Your task to perform on an android device: Show me popular videos on Youtube Image 0: 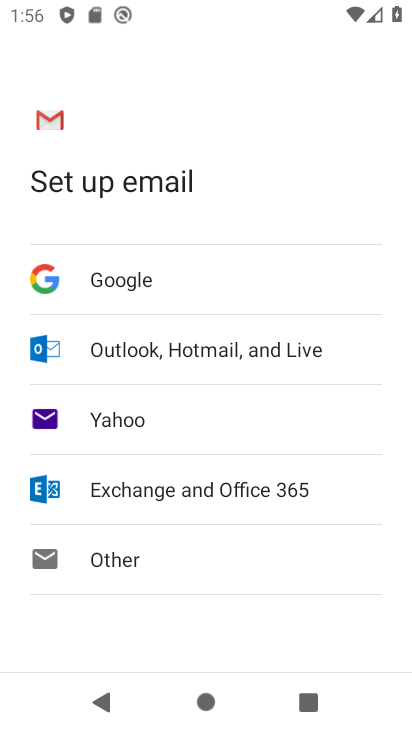
Step 0: press home button
Your task to perform on an android device: Show me popular videos on Youtube Image 1: 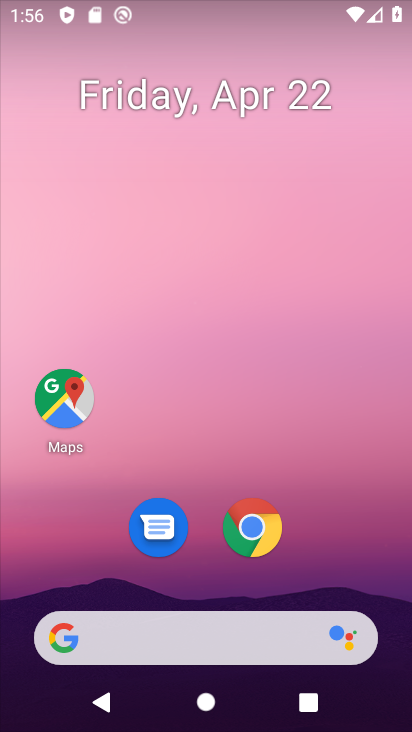
Step 1: drag from (338, 597) to (338, 281)
Your task to perform on an android device: Show me popular videos on Youtube Image 2: 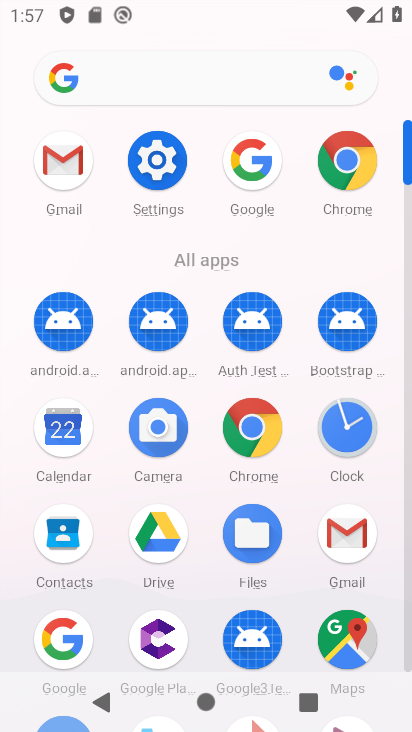
Step 2: click (407, 667)
Your task to perform on an android device: Show me popular videos on Youtube Image 3: 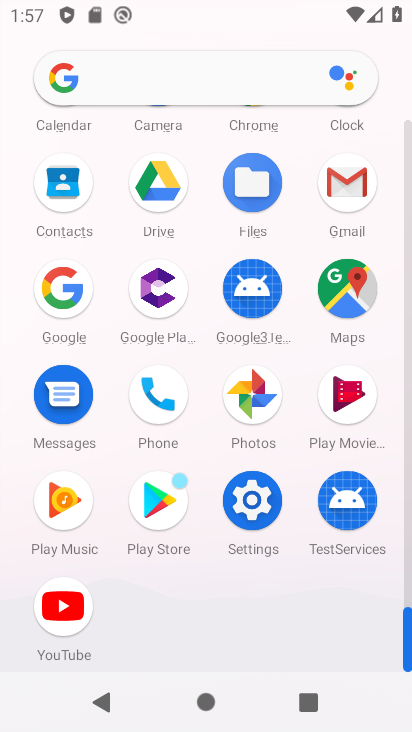
Step 3: click (54, 610)
Your task to perform on an android device: Show me popular videos on Youtube Image 4: 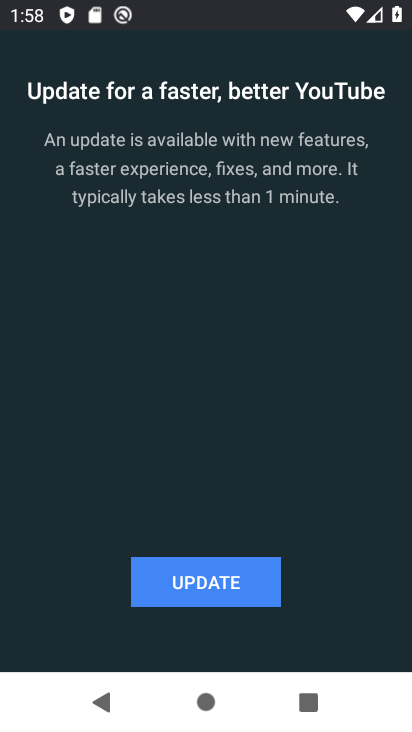
Step 4: click (213, 588)
Your task to perform on an android device: Show me popular videos on Youtube Image 5: 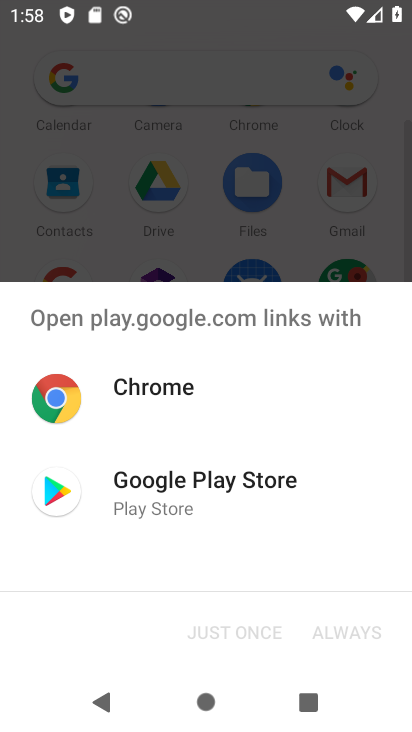
Step 5: click (139, 509)
Your task to perform on an android device: Show me popular videos on Youtube Image 6: 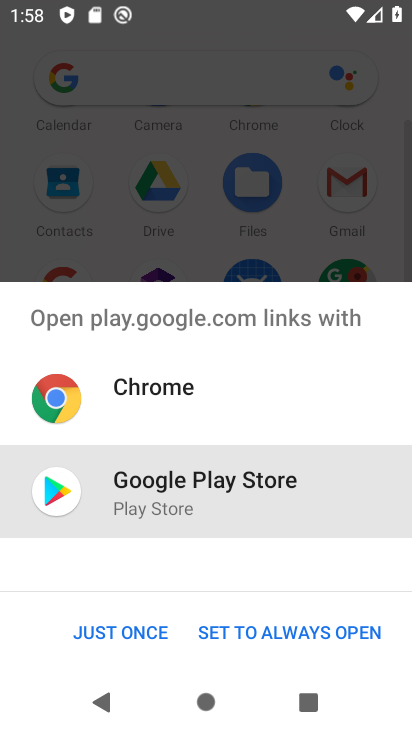
Step 6: click (155, 636)
Your task to perform on an android device: Show me popular videos on Youtube Image 7: 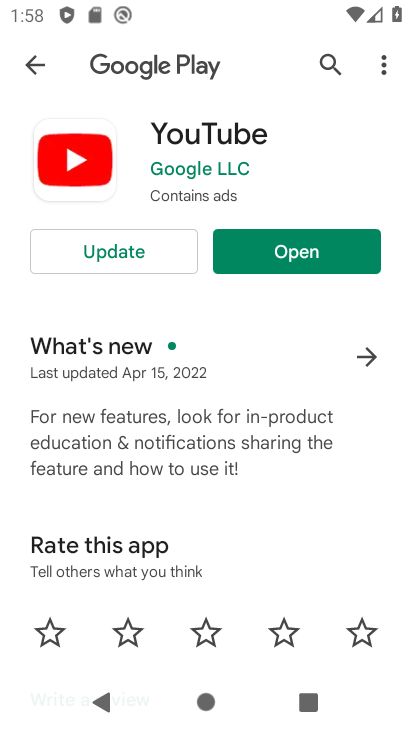
Step 7: click (125, 228)
Your task to perform on an android device: Show me popular videos on Youtube Image 8: 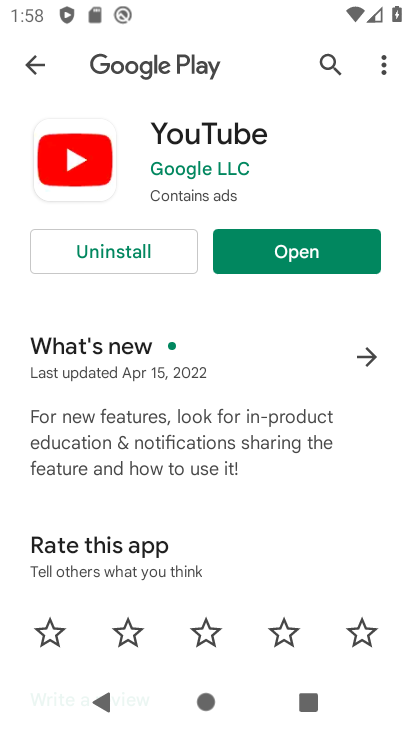
Step 8: click (340, 249)
Your task to perform on an android device: Show me popular videos on Youtube Image 9: 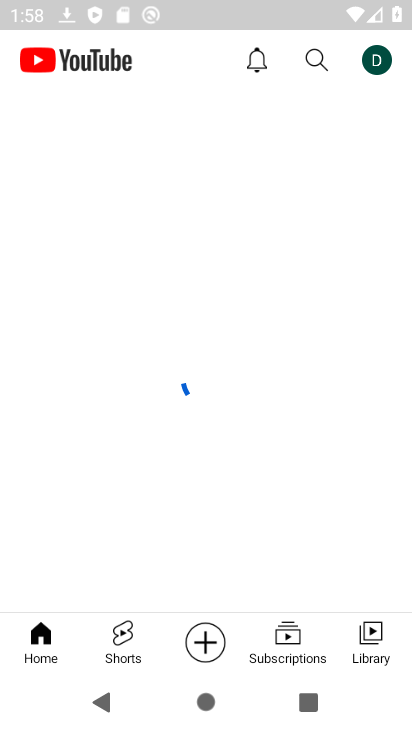
Step 9: click (287, 639)
Your task to perform on an android device: Show me popular videos on Youtube Image 10: 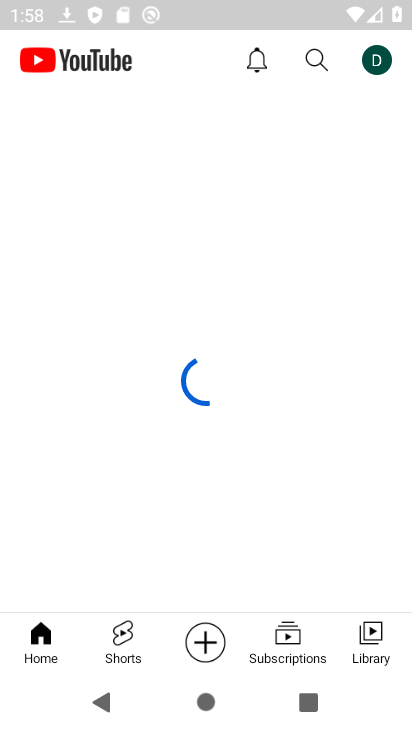
Step 10: click (369, 639)
Your task to perform on an android device: Show me popular videos on Youtube Image 11: 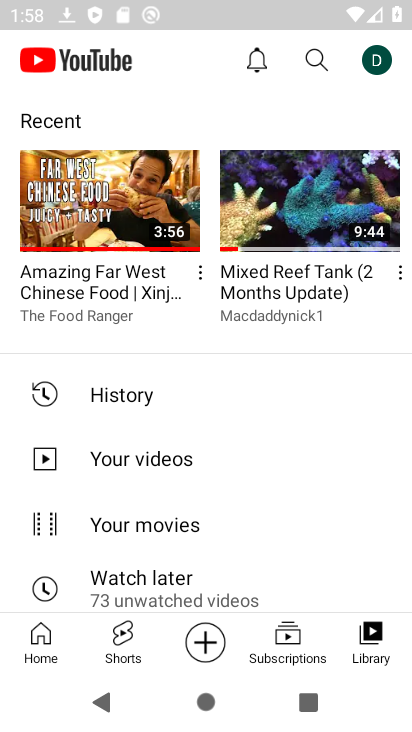
Step 11: task complete